Your task to perform on an android device: turn off notifications in google photos Image 0: 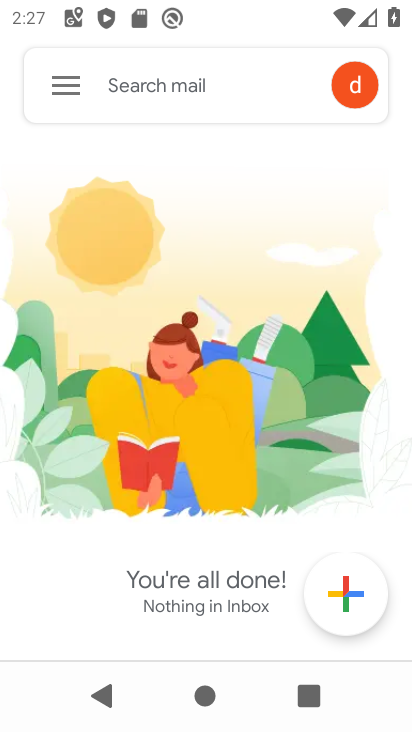
Step 0: press home button
Your task to perform on an android device: turn off notifications in google photos Image 1: 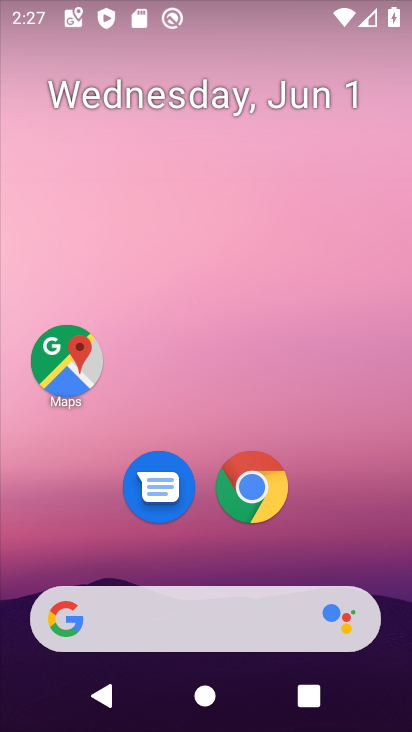
Step 1: drag from (372, 542) to (355, 235)
Your task to perform on an android device: turn off notifications in google photos Image 2: 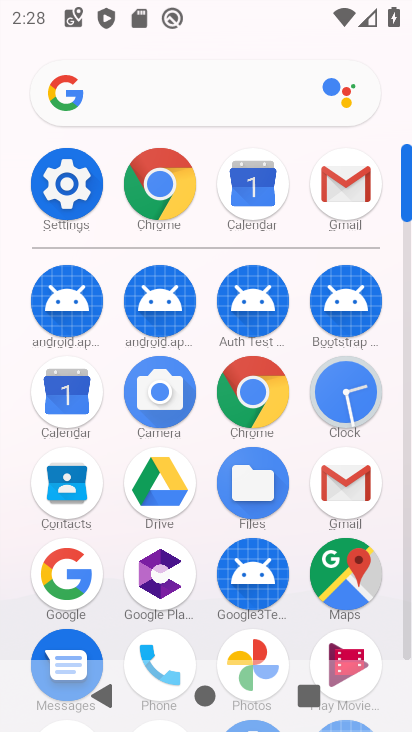
Step 2: drag from (392, 625) to (385, 413)
Your task to perform on an android device: turn off notifications in google photos Image 3: 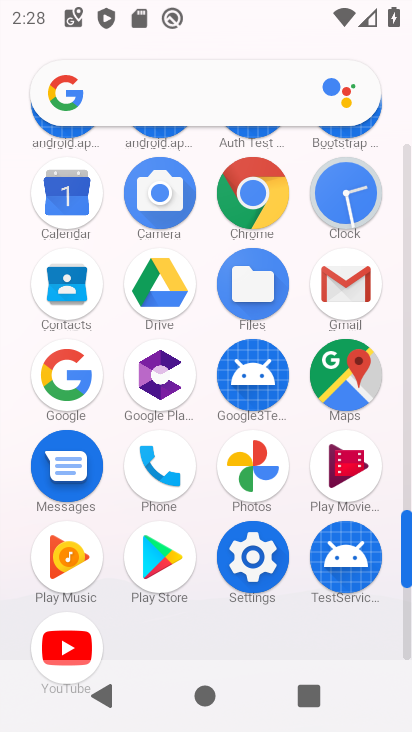
Step 3: click (263, 474)
Your task to perform on an android device: turn off notifications in google photos Image 4: 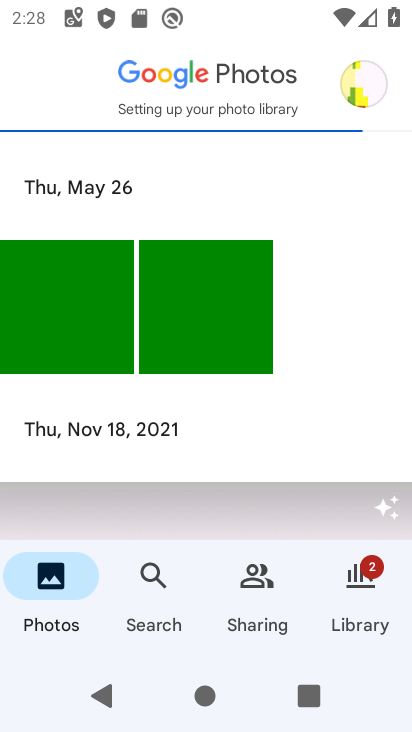
Step 4: click (366, 94)
Your task to perform on an android device: turn off notifications in google photos Image 5: 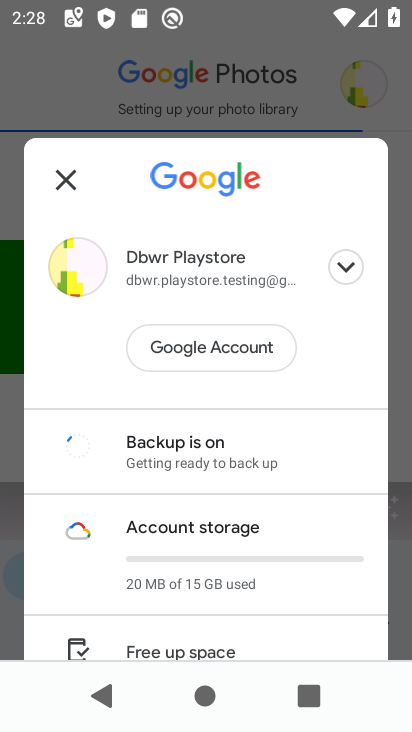
Step 5: drag from (295, 548) to (318, 394)
Your task to perform on an android device: turn off notifications in google photos Image 6: 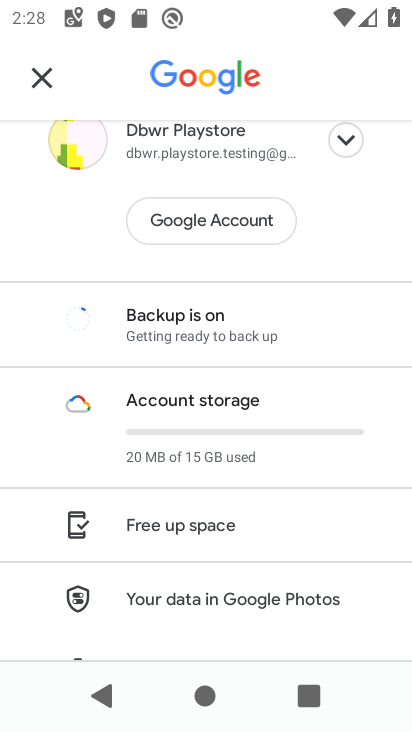
Step 6: drag from (329, 538) to (344, 372)
Your task to perform on an android device: turn off notifications in google photos Image 7: 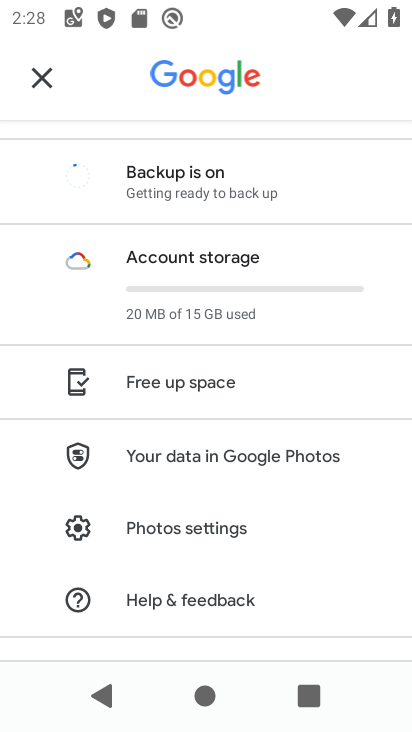
Step 7: click (260, 524)
Your task to perform on an android device: turn off notifications in google photos Image 8: 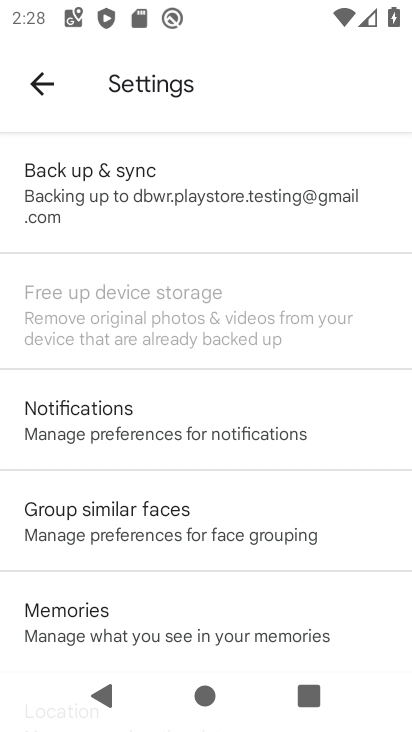
Step 8: click (316, 438)
Your task to perform on an android device: turn off notifications in google photos Image 9: 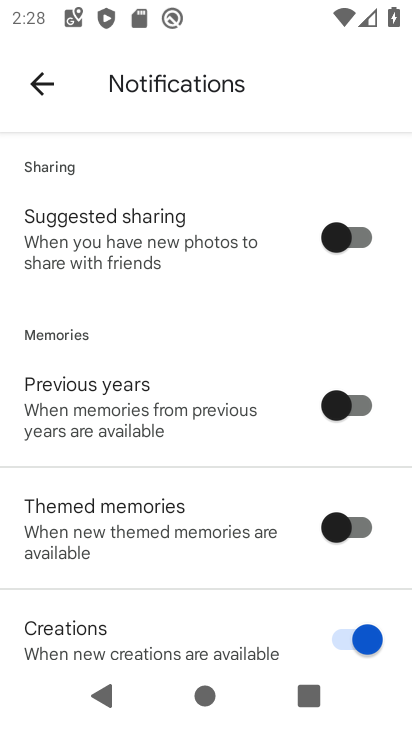
Step 9: drag from (308, 485) to (295, 375)
Your task to perform on an android device: turn off notifications in google photos Image 10: 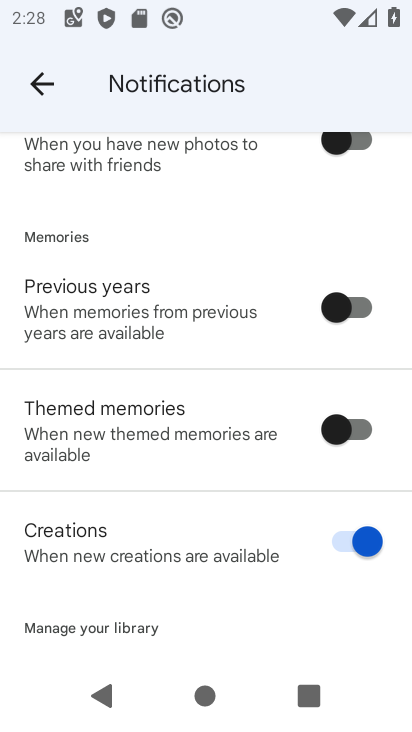
Step 10: drag from (285, 524) to (282, 331)
Your task to perform on an android device: turn off notifications in google photos Image 11: 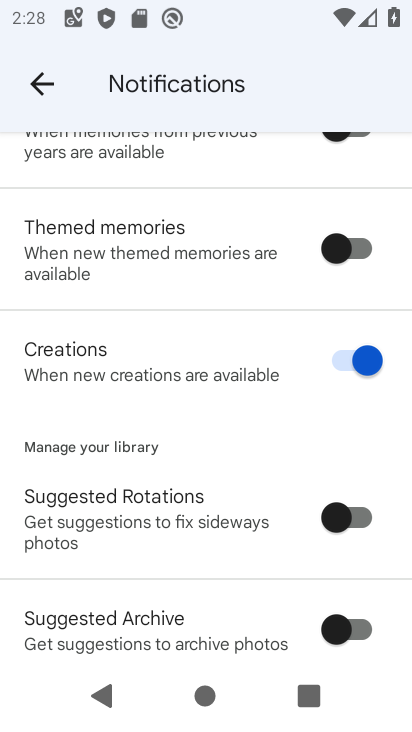
Step 11: drag from (278, 490) to (281, 184)
Your task to perform on an android device: turn off notifications in google photos Image 12: 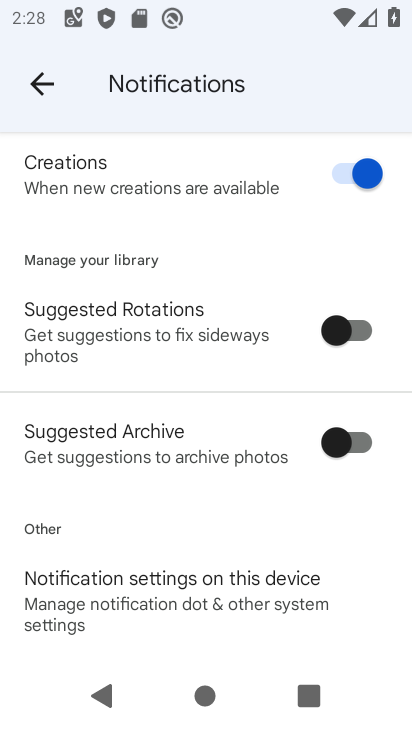
Step 12: click (255, 586)
Your task to perform on an android device: turn off notifications in google photos Image 13: 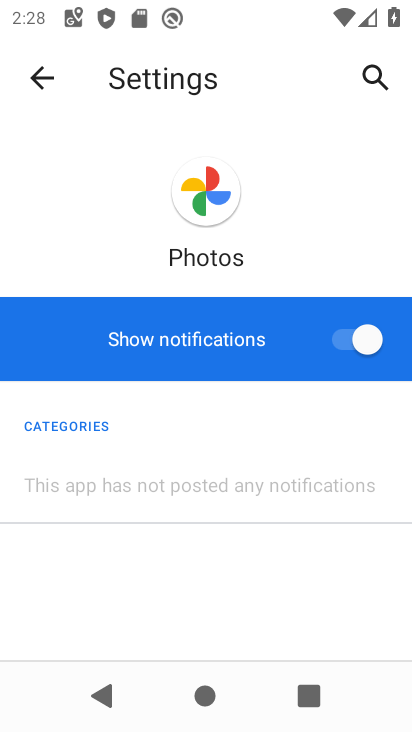
Step 13: click (348, 351)
Your task to perform on an android device: turn off notifications in google photos Image 14: 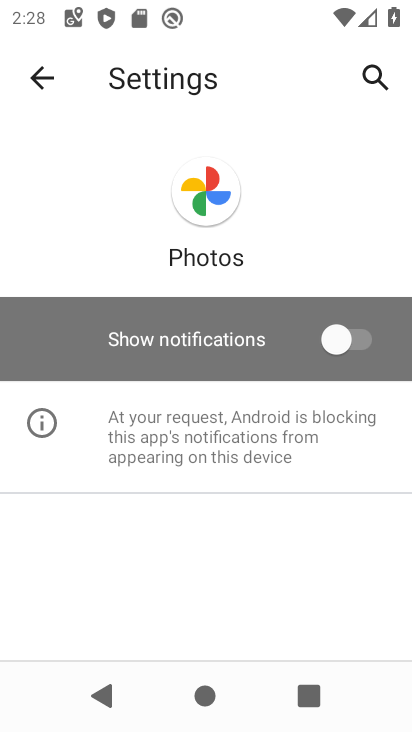
Step 14: task complete